Your task to perform on an android device: turn off notifications settings in the gmail app Image 0: 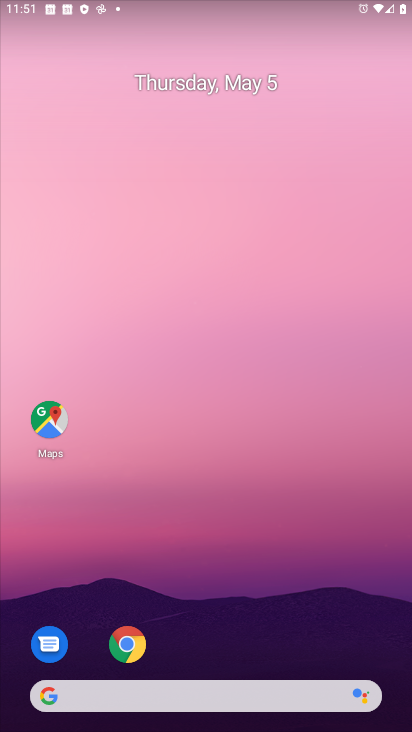
Step 0: drag from (208, 657) to (270, 44)
Your task to perform on an android device: turn off notifications settings in the gmail app Image 1: 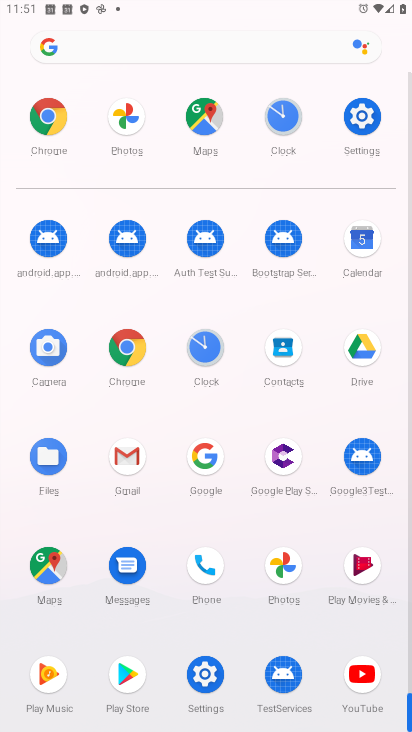
Step 1: click (129, 459)
Your task to perform on an android device: turn off notifications settings in the gmail app Image 2: 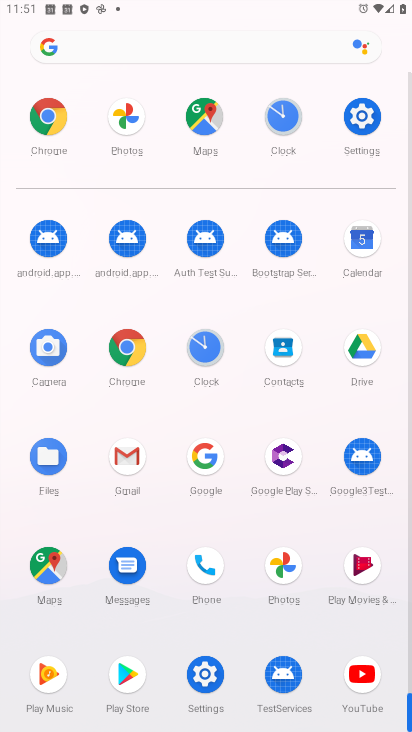
Step 2: click (129, 459)
Your task to perform on an android device: turn off notifications settings in the gmail app Image 3: 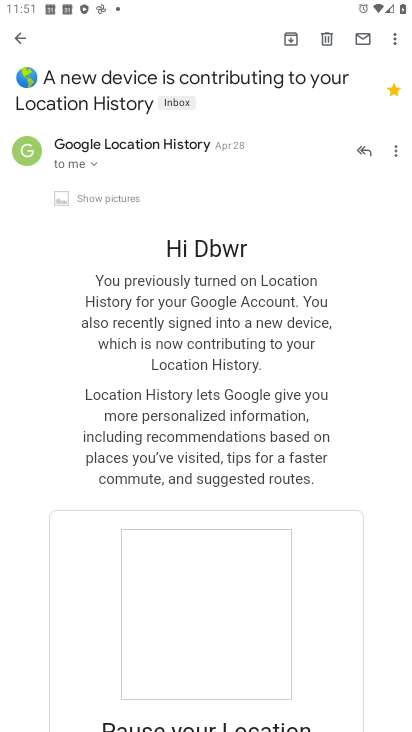
Step 3: drag from (316, 629) to (326, 181)
Your task to perform on an android device: turn off notifications settings in the gmail app Image 4: 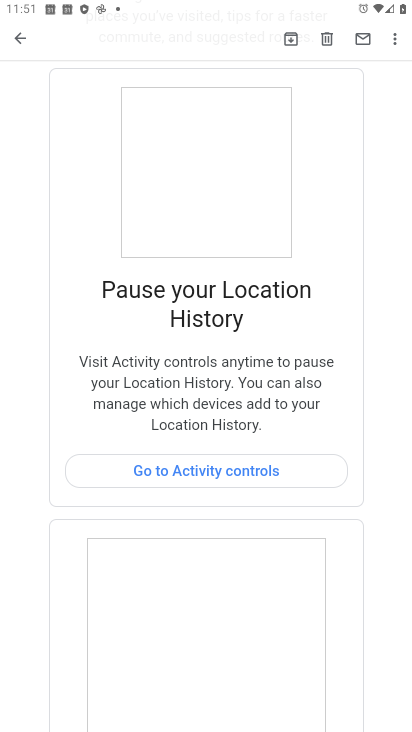
Step 4: drag from (313, 140) to (300, 678)
Your task to perform on an android device: turn off notifications settings in the gmail app Image 5: 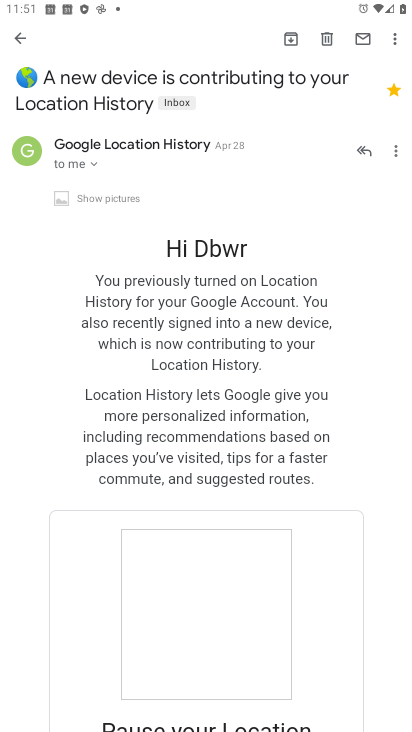
Step 5: drag from (261, 250) to (338, 710)
Your task to perform on an android device: turn off notifications settings in the gmail app Image 6: 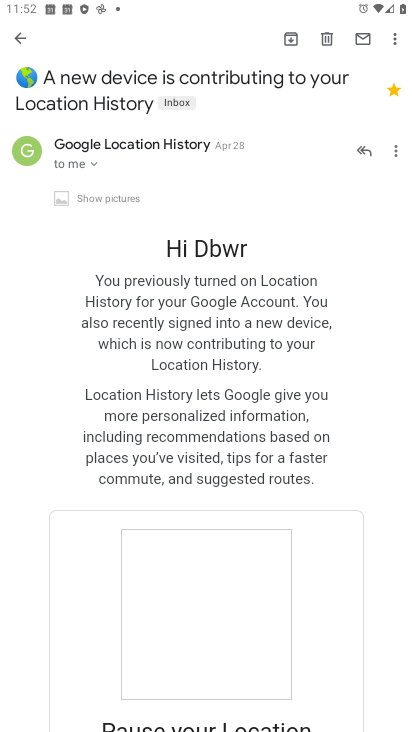
Step 6: click (17, 36)
Your task to perform on an android device: turn off notifications settings in the gmail app Image 7: 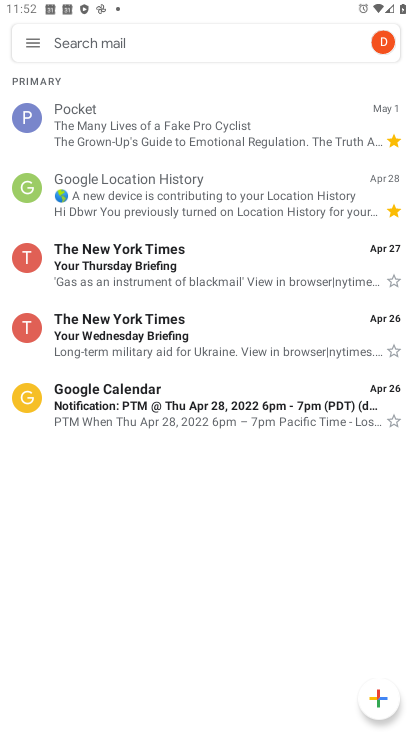
Step 7: click (37, 37)
Your task to perform on an android device: turn off notifications settings in the gmail app Image 8: 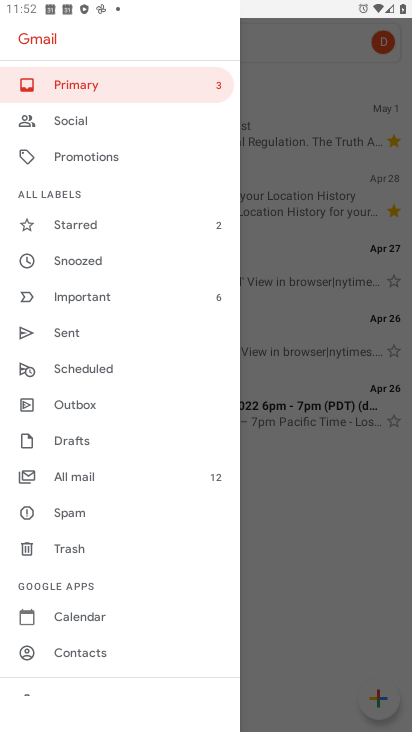
Step 8: click (153, 206)
Your task to perform on an android device: turn off notifications settings in the gmail app Image 9: 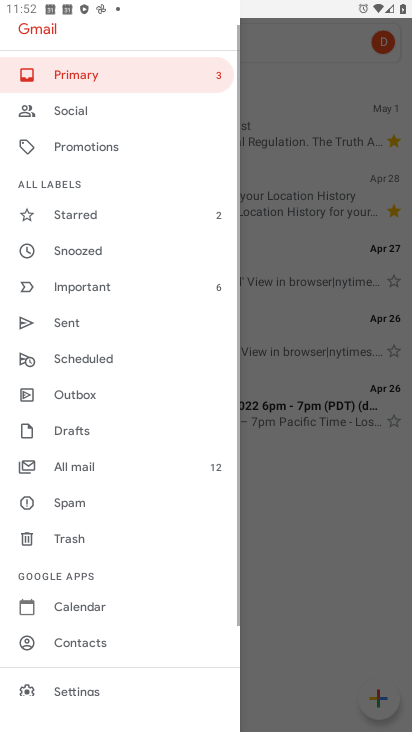
Step 9: click (107, 235)
Your task to perform on an android device: turn off notifications settings in the gmail app Image 10: 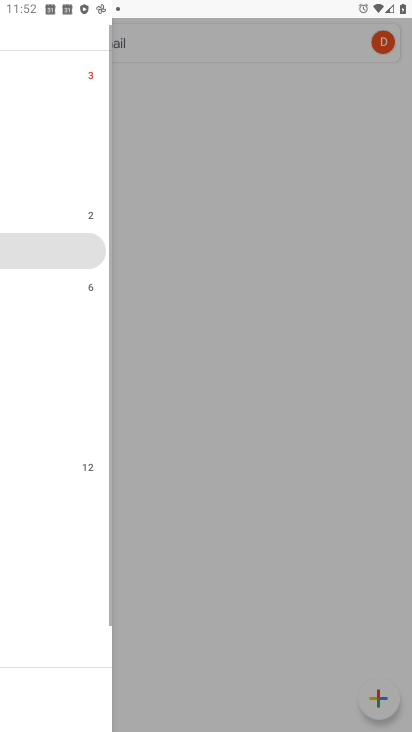
Step 10: drag from (89, 605) to (129, 260)
Your task to perform on an android device: turn off notifications settings in the gmail app Image 11: 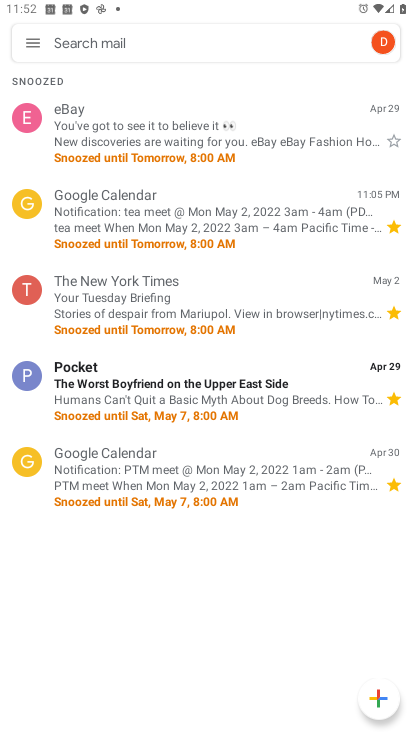
Step 11: click (41, 52)
Your task to perform on an android device: turn off notifications settings in the gmail app Image 12: 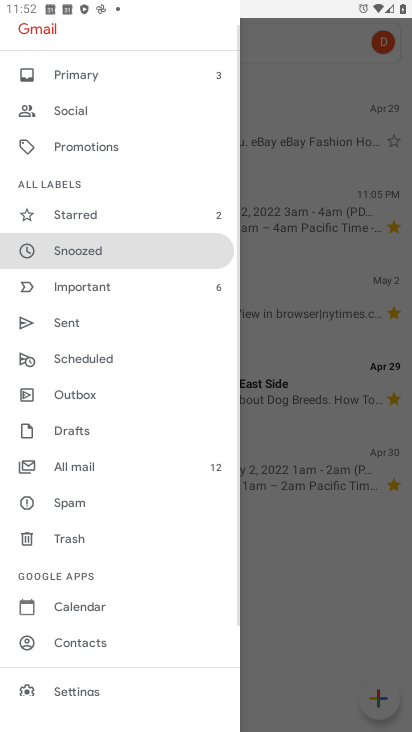
Step 12: click (64, 691)
Your task to perform on an android device: turn off notifications settings in the gmail app Image 13: 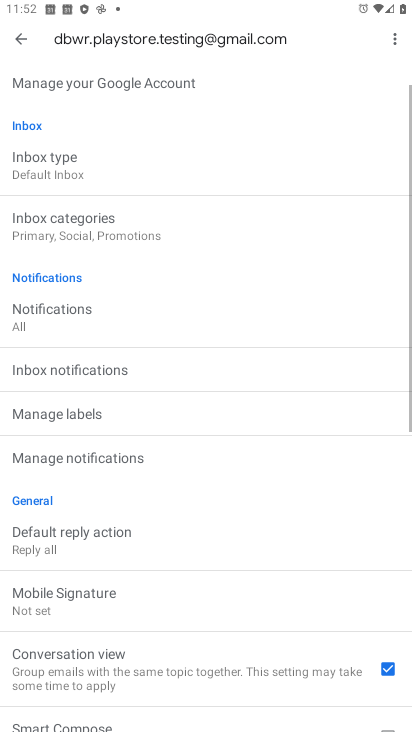
Step 13: drag from (130, 606) to (227, 136)
Your task to perform on an android device: turn off notifications settings in the gmail app Image 14: 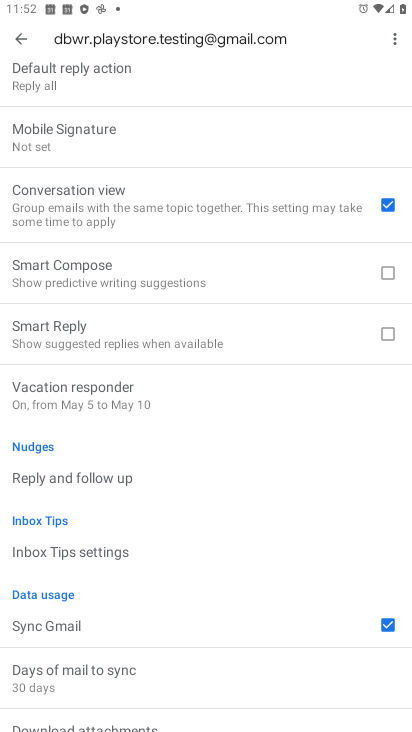
Step 14: drag from (138, 610) to (214, 243)
Your task to perform on an android device: turn off notifications settings in the gmail app Image 15: 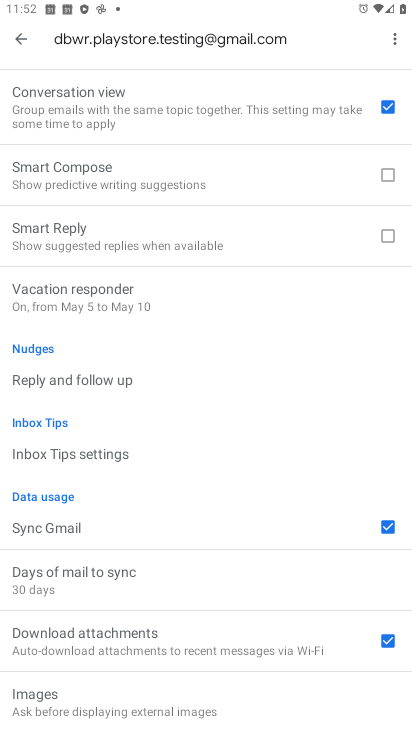
Step 15: drag from (188, 190) to (214, 644)
Your task to perform on an android device: turn off notifications settings in the gmail app Image 16: 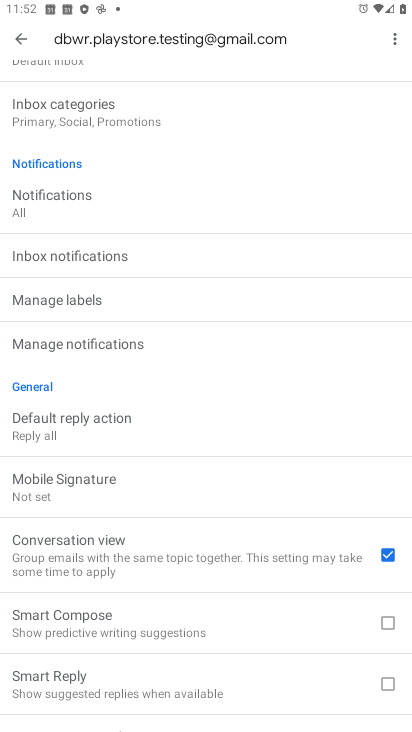
Step 16: click (96, 344)
Your task to perform on an android device: turn off notifications settings in the gmail app Image 17: 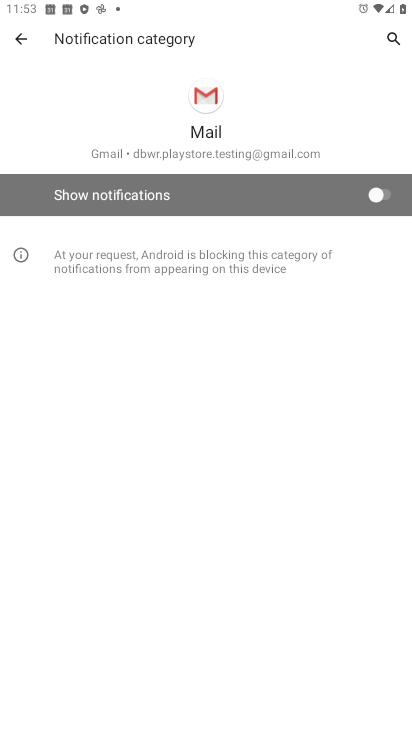
Step 17: task complete